Your task to perform on an android device: Go to Reddit.com Image 0: 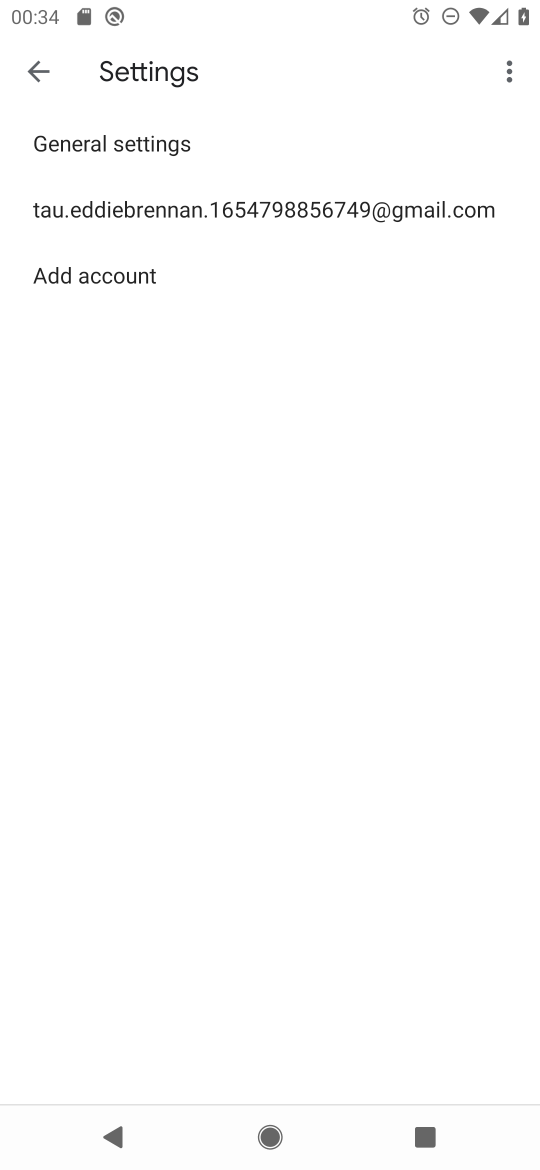
Step 0: press home button
Your task to perform on an android device: Go to Reddit.com Image 1: 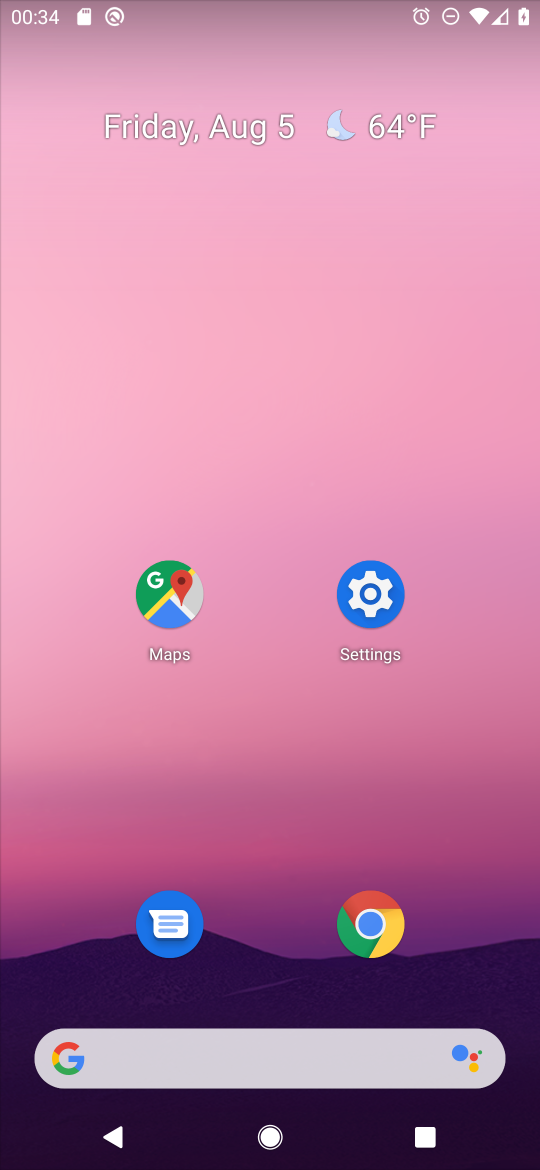
Step 1: click (387, 925)
Your task to perform on an android device: Go to Reddit.com Image 2: 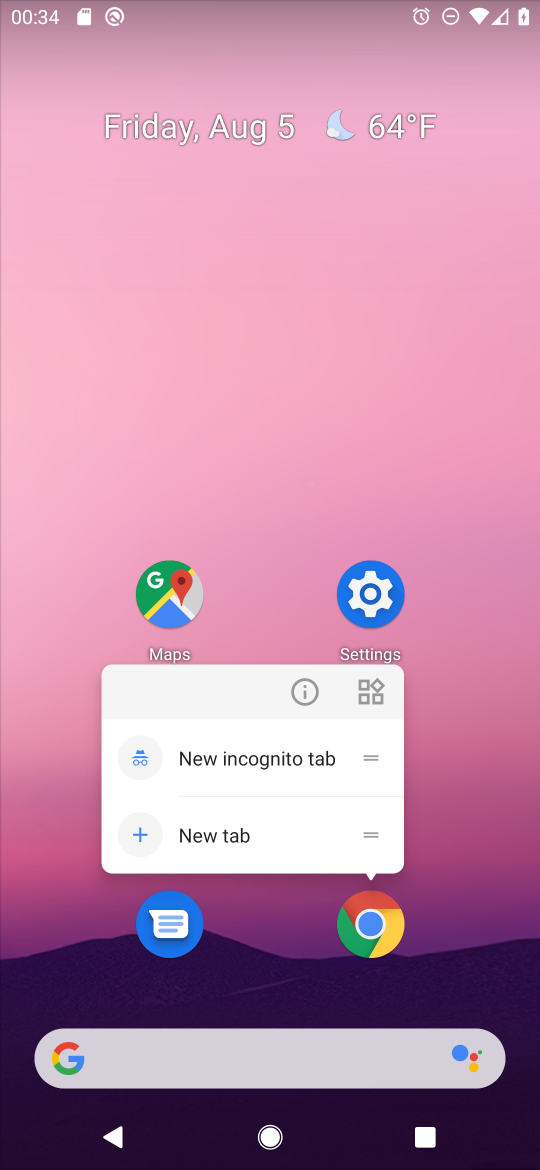
Step 2: click (377, 919)
Your task to perform on an android device: Go to Reddit.com Image 3: 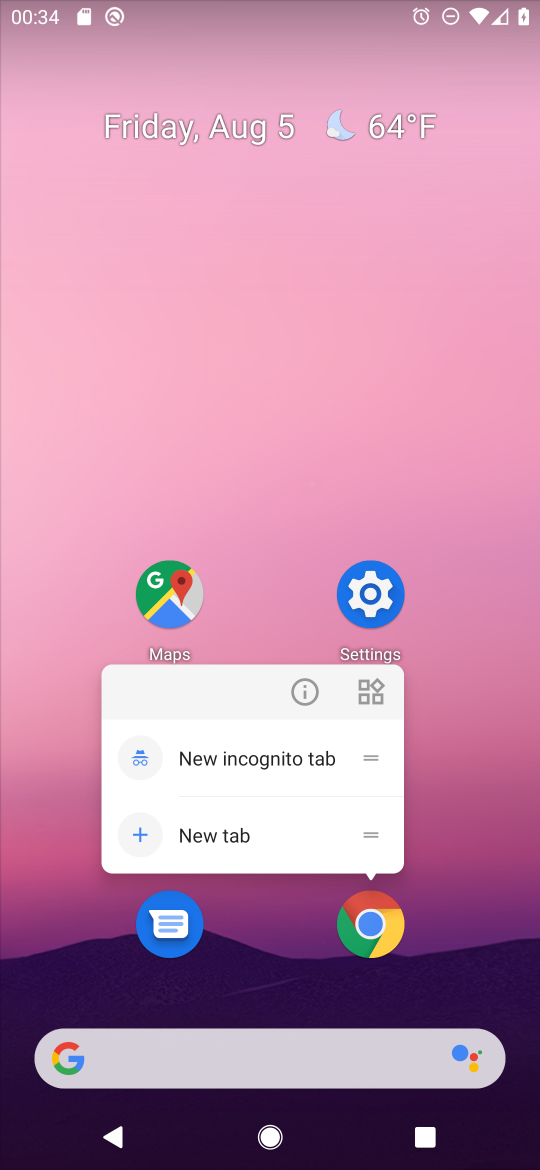
Step 3: click (377, 922)
Your task to perform on an android device: Go to Reddit.com Image 4: 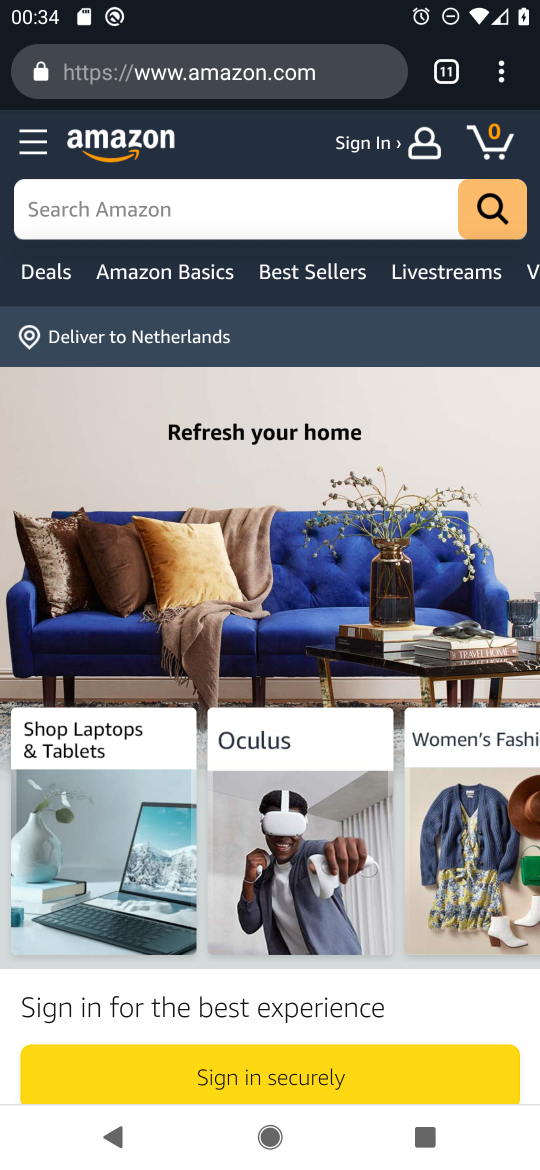
Step 4: drag from (507, 75) to (328, 134)
Your task to perform on an android device: Go to Reddit.com Image 5: 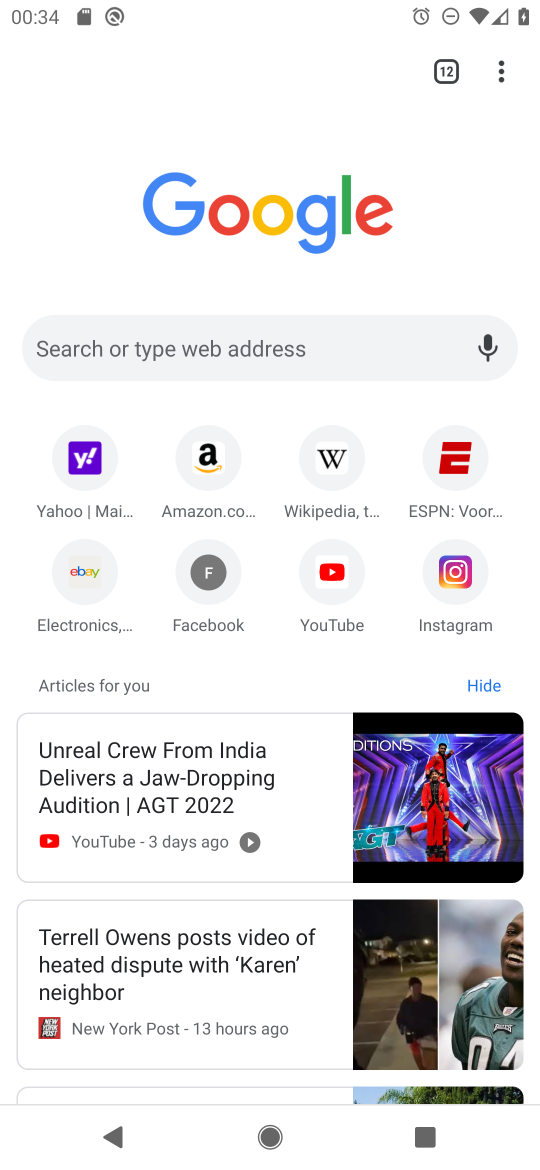
Step 5: click (260, 349)
Your task to perform on an android device: Go to Reddit.com Image 6: 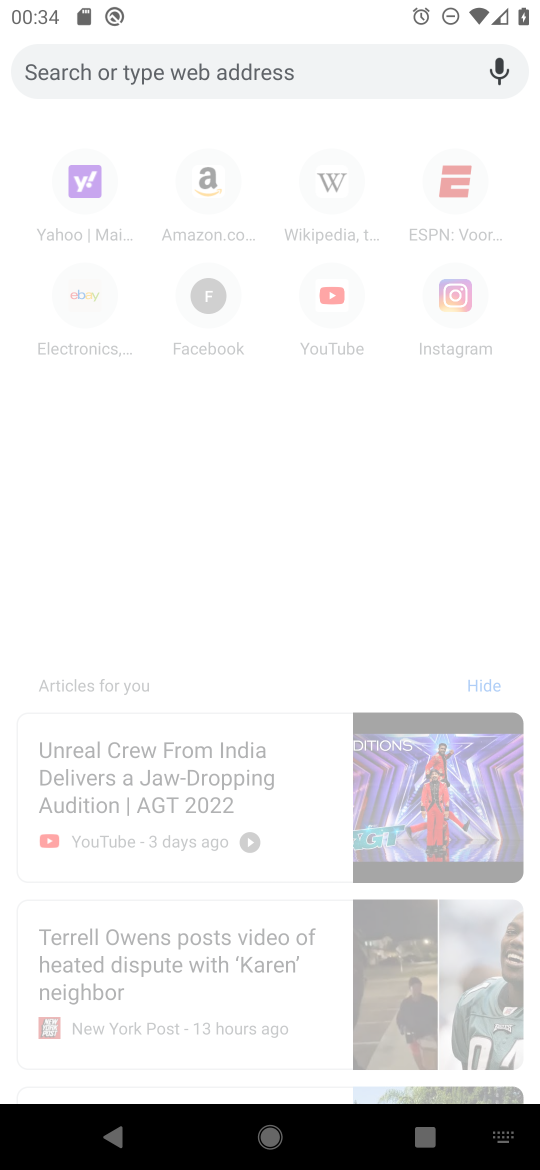
Step 6: type "Reddit.com"
Your task to perform on an android device: Go to Reddit.com Image 7: 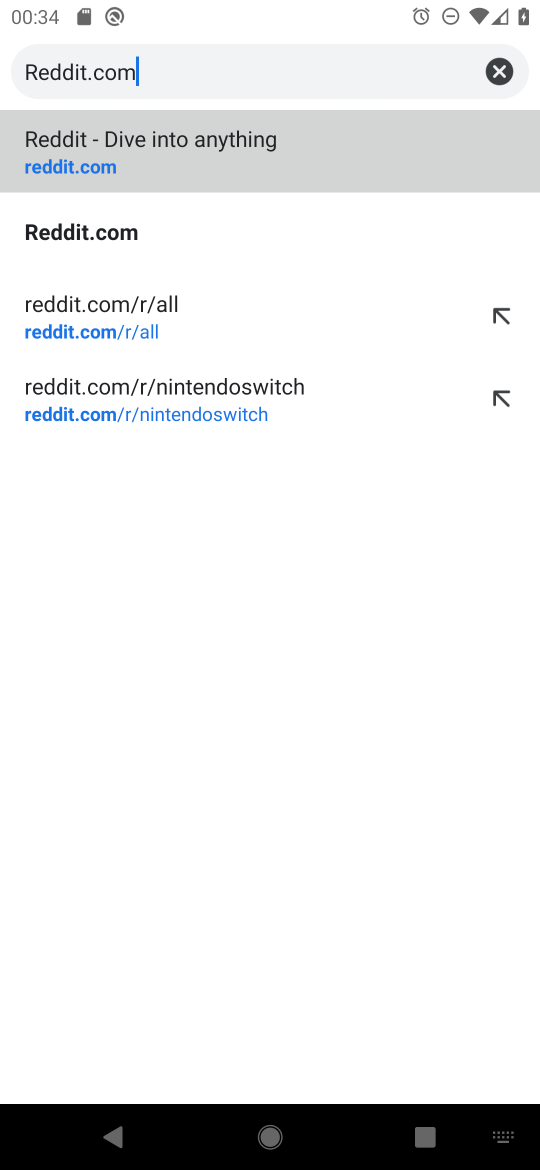
Step 7: click (157, 161)
Your task to perform on an android device: Go to Reddit.com Image 8: 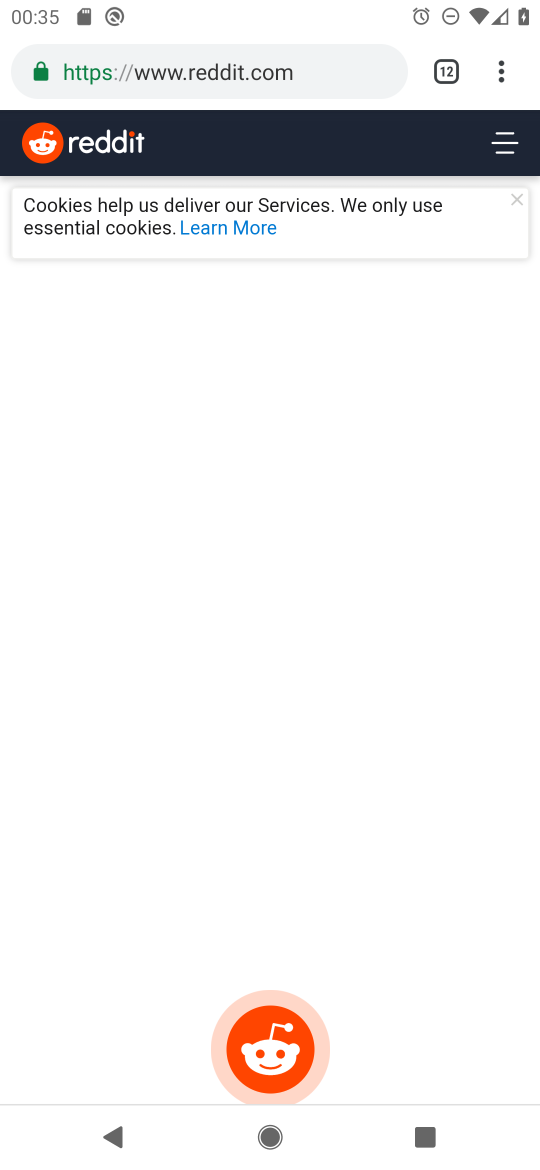
Step 8: task complete